Your task to perform on an android device: set an alarm Image 0: 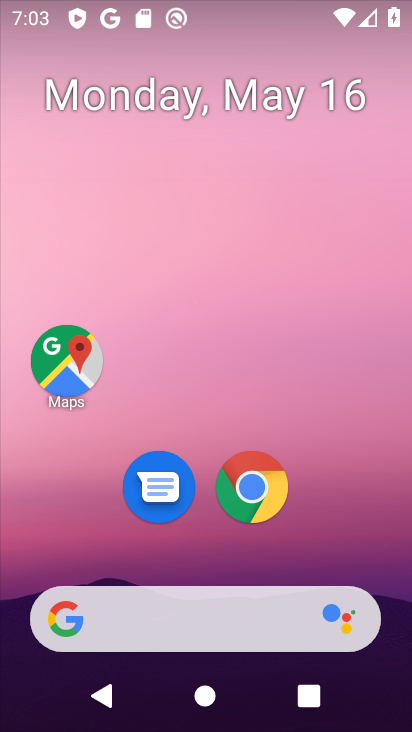
Step 0: drag from (349, 563) to (260, 26)
Your task to perform on an android device: set an alarm Image 1: 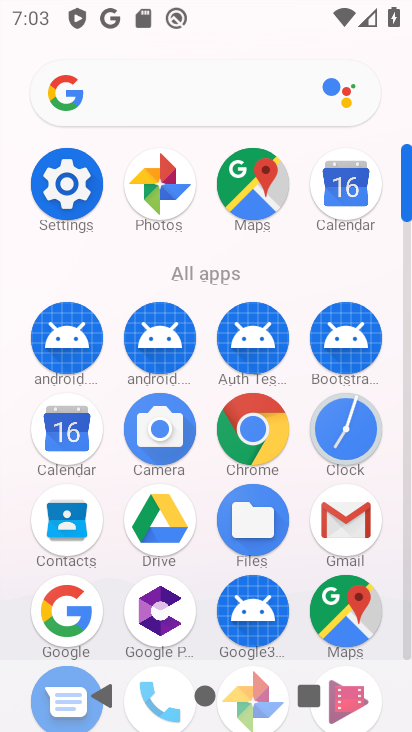
Step 1: click (349, 433)
Your task to perform on an android device: set an alarm Image 2: 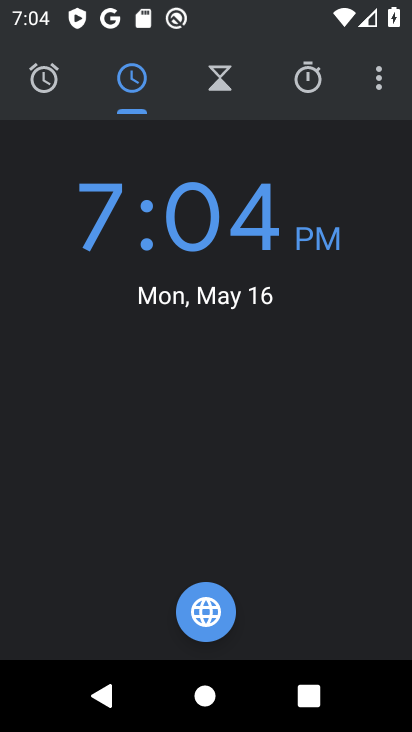
Step 2: click (47, 71)
Your task to perform on an android device: set an alarm Image 3: 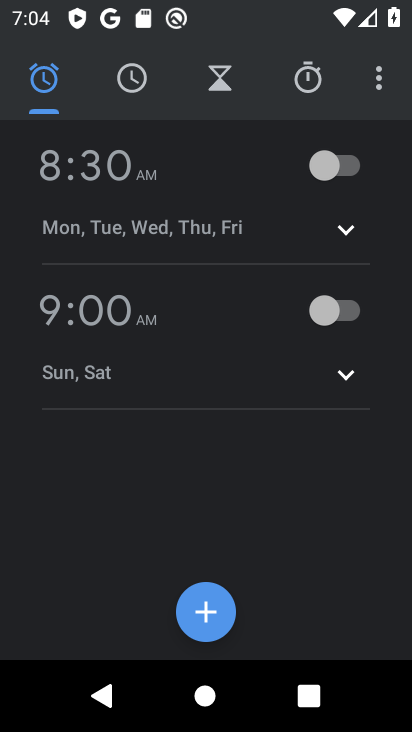
Step 3: click (332, 168)
Your task to perform on an android device: set an alarm Image 4: 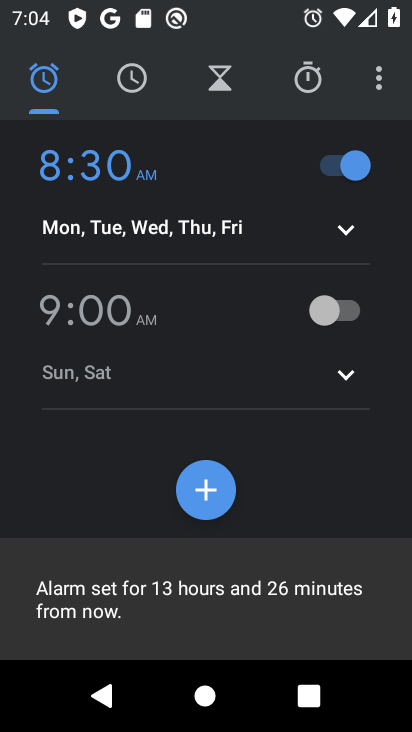
Step 4: task complete